Your task to perform on an android device: toggle translation in the chrome app Image 0: 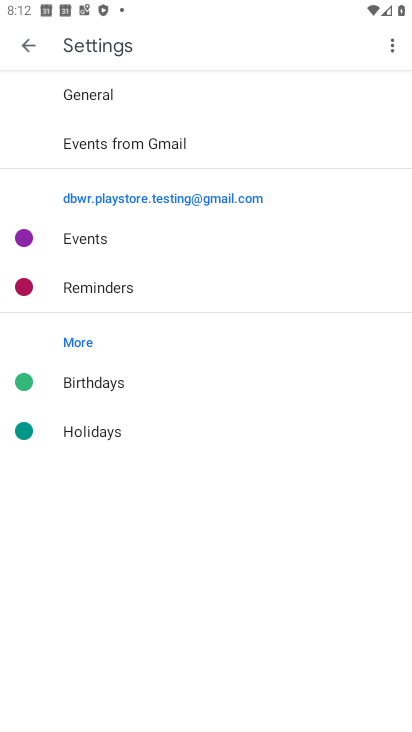
Step 0: press home button
Your task to perform on an android device: toggle translation in the chrome app Image 1: 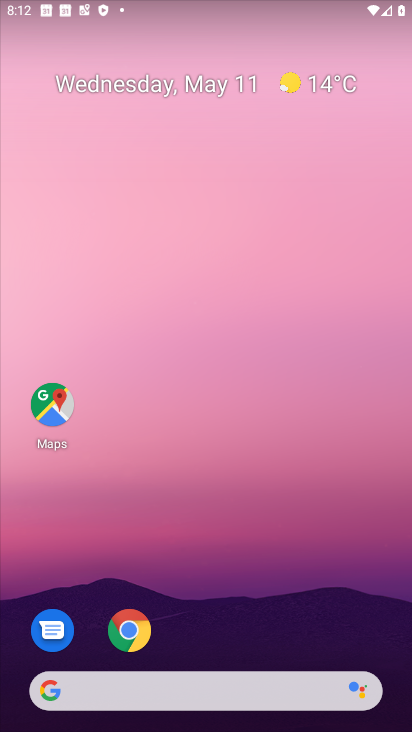
Step 1: click (112, 632)
Your task to perform on an android device: toggle translation in the chrome app Image 2: 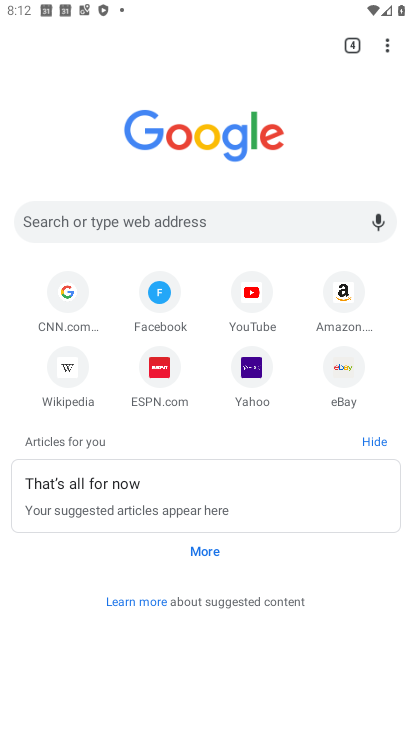
Step 2: click (386, 42)
Your task to perform on an android device: toggle translation in the chrome app Image 3: 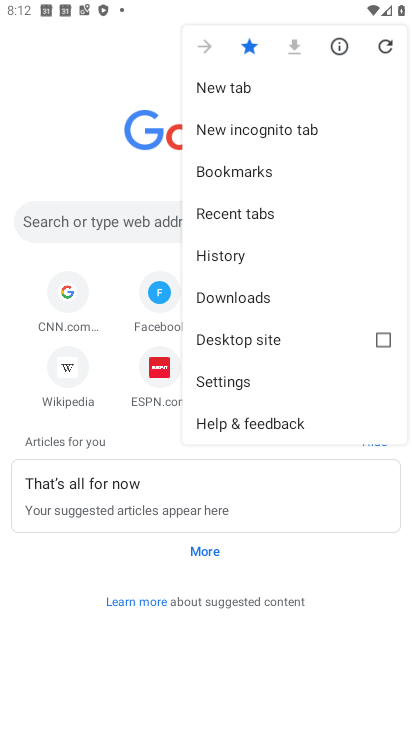
Step 3: click (223, 379)
Your task to perform on an android device: toggle translation in the chrome app Image 4: 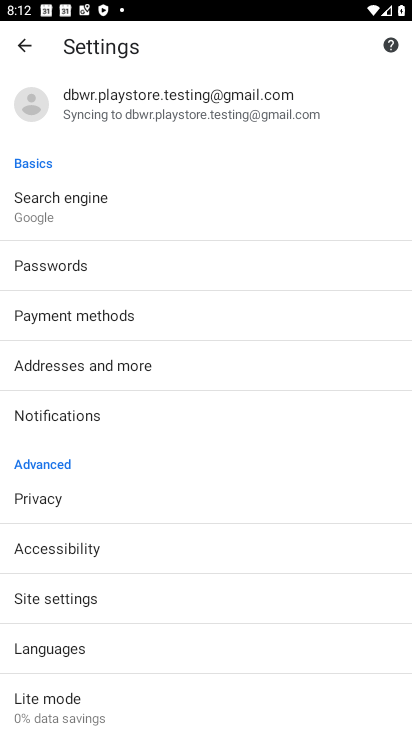
Step 4: click (35, 641)
Your task to perform on an android device: toggle translation in the chrome app Image 5: 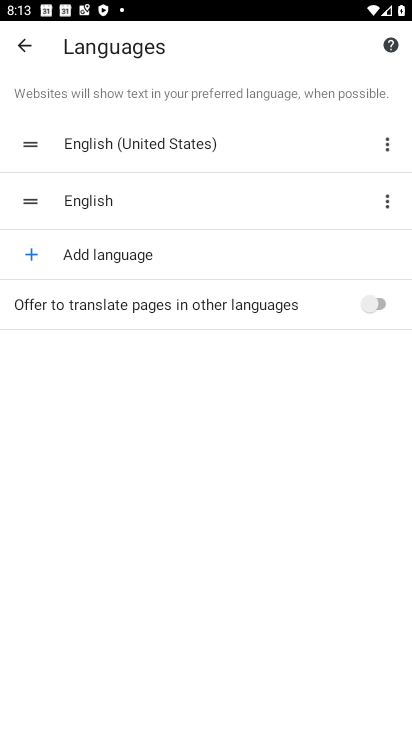
Step 5: click (375, 296)
Your task to perform on an android device: toggle translation in the chrome app Image 6: 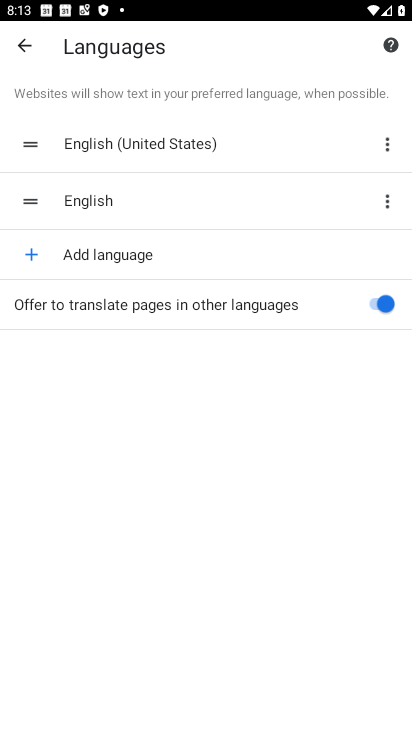
Step 6: task complete